Your task to perform on an android device: Search for Italian restaurants on Maps Image 0: 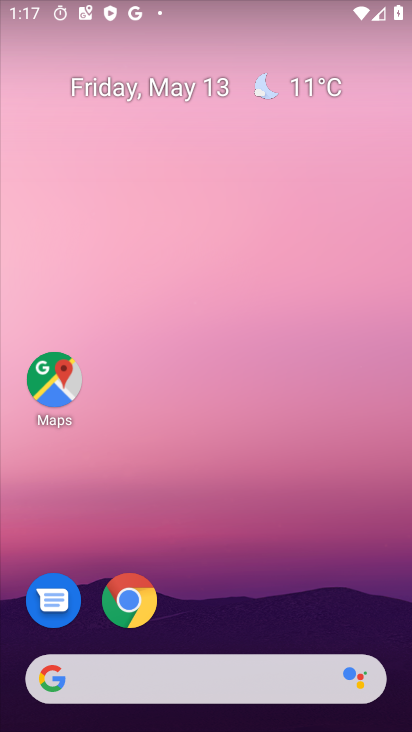
Step 0: click (66, 386)
Your task to perform on an android device: Search for Italian restaurants on Maps Image 1: 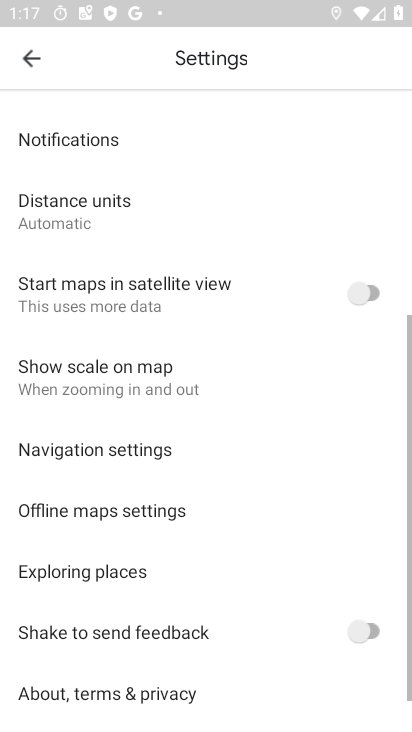
Step 1: click (28, 52)
Your task to perform on an android device: Search for Italian restaurants on Maps Image 2: 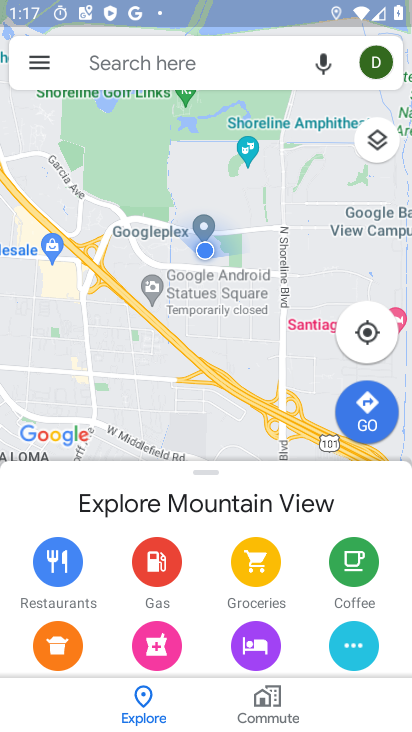
Step 2: click (135, 78)
Your task to perform on an android device: Search for Italian restaurants on Maps Image 3: 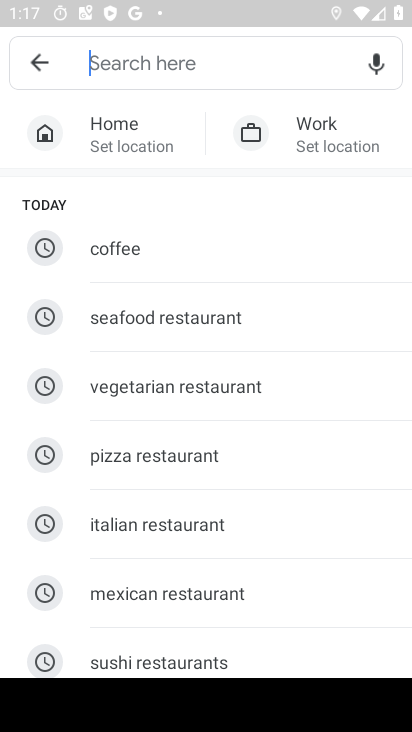
Step 3: click (142, 501)
Your task to perform on an android device: Search for Italian restaurants on Maps Image 4: 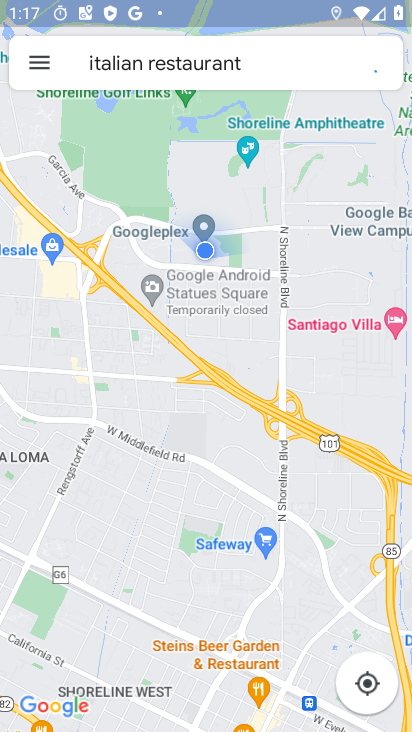
Step 4: task complete